Your task to perform on an android device: open app "Facebook" Image 0: 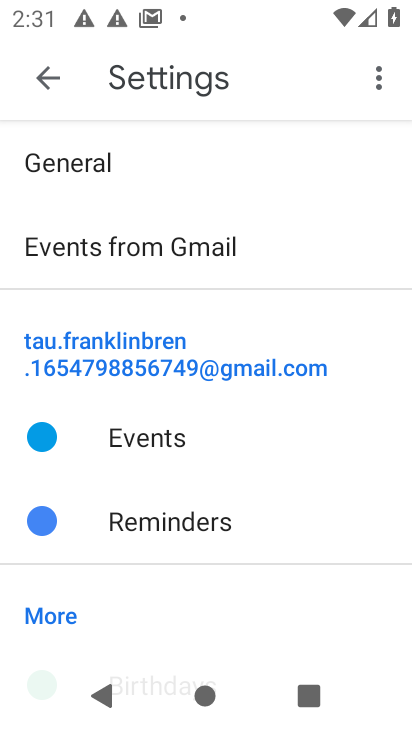
Step 0: press home button
Your task to perform on an android device: open app "Facebook" Image 1: 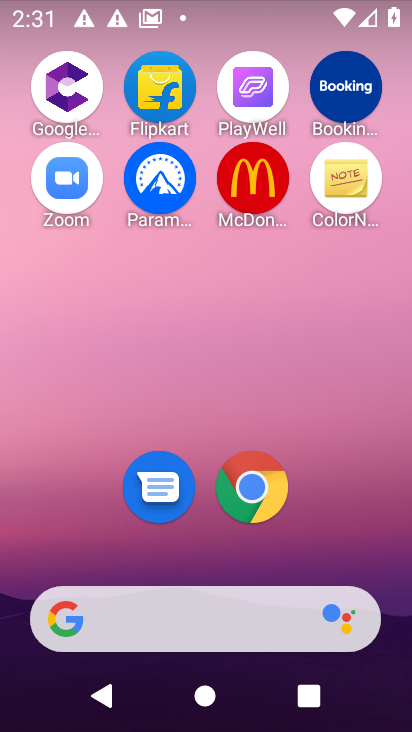
Step 1: drag from (153, 650) to (294, 53)
Your task to perform on an android device: open app "Facebook" Image 2: 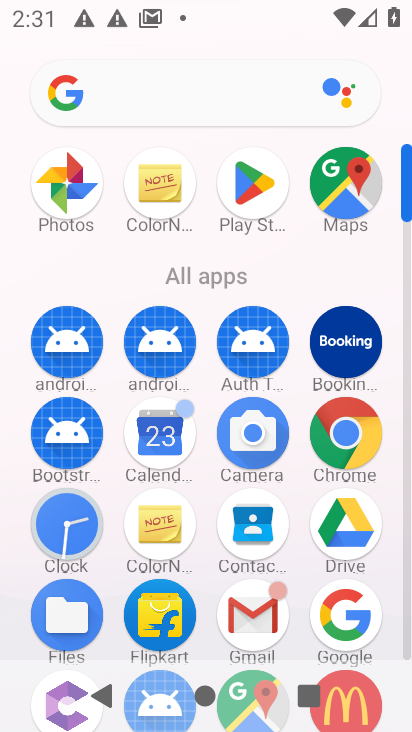
Step 2: click (254, 180)
Your task to perform on an android device: open app "Facebook" Image 3: 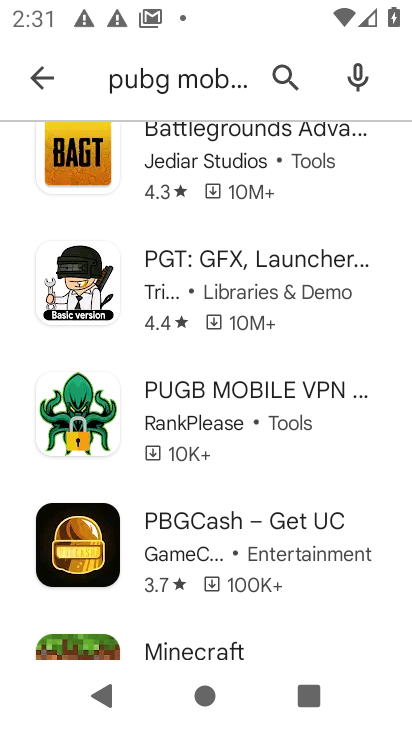
Step 3: press back button
Your task to perform on an android device: open app "Facebook" Image 4: 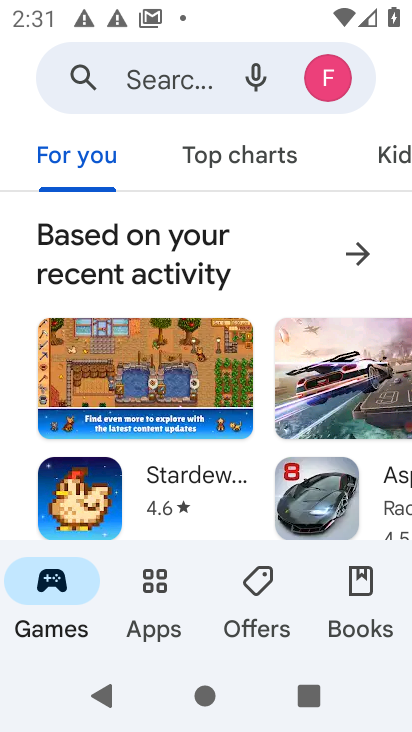
Step 4: click (170, 90)
Your task to perform on an android device: open app "Facebook" Image 5: 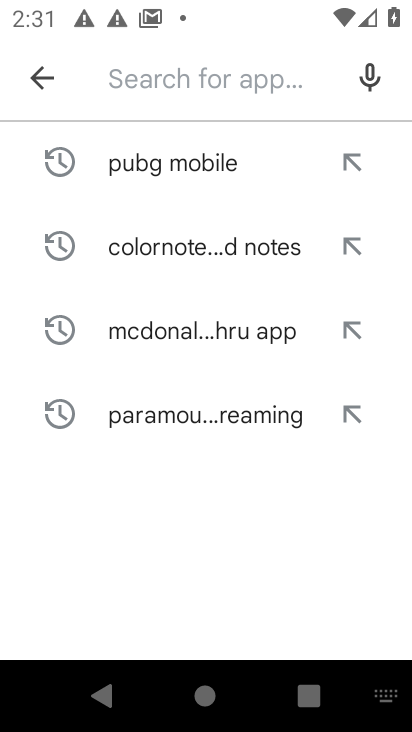
Step 5: type "Facebook"
Your task to perform on an android device: open app "Facebook" Image 6: 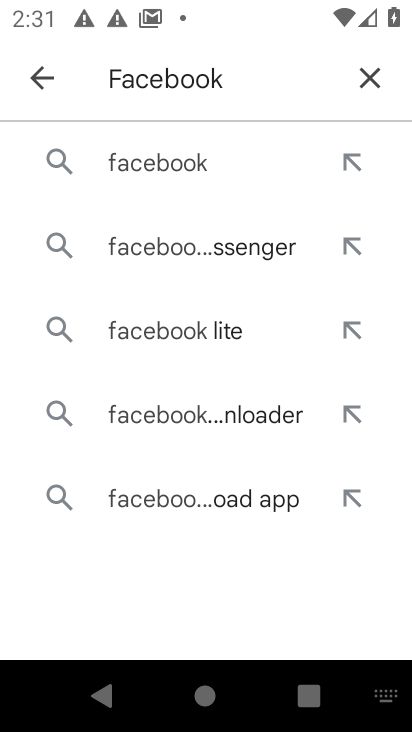
Step 6: click (175, 166)
Your task to perform on an android device: open app "Facebook" Image 7: 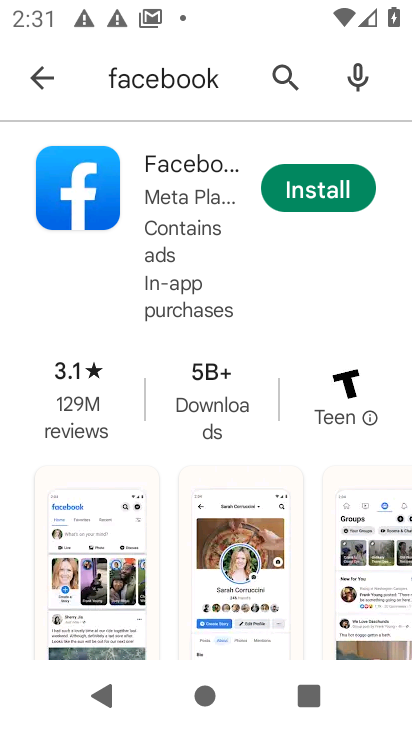
Step 7: task complete